Your task to perform on an android device: add a contact Image 0: 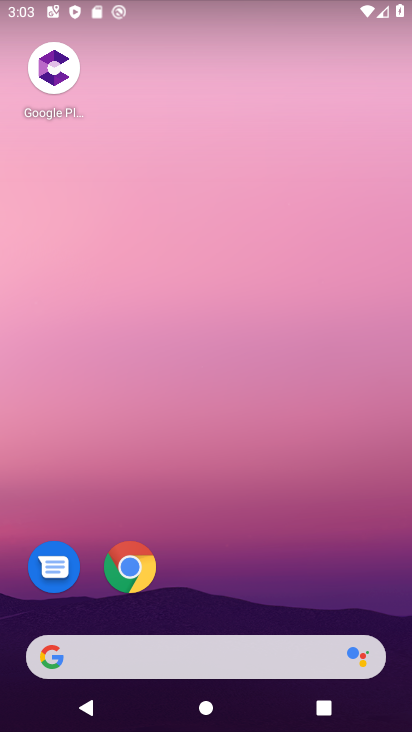
Step 0: drag from (232, 604) to (283, 9)
Your task to perform on an android device: add a contact Image 1: 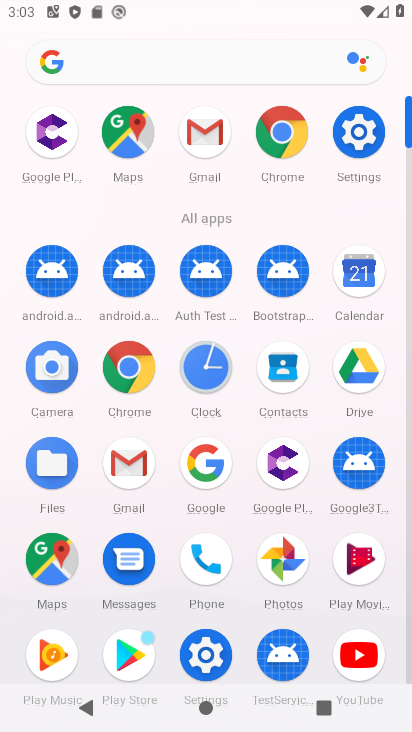
Step 1: click (290, 373)
Your task to perform on an android device: add a contact Image 2: 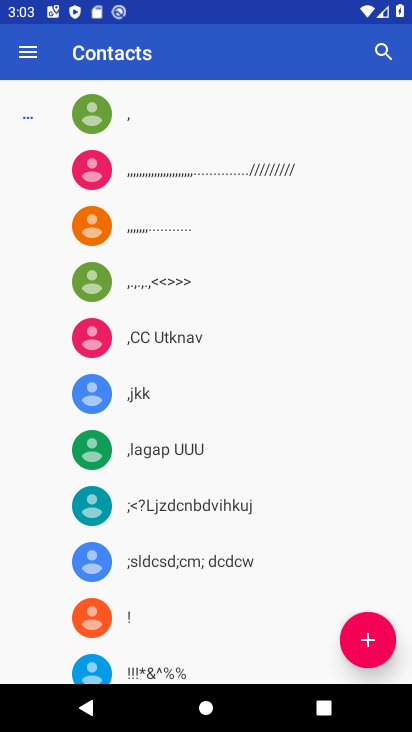
Step 2: click (370, 641)
Your task to perform on an android device: add a contact Image 3: 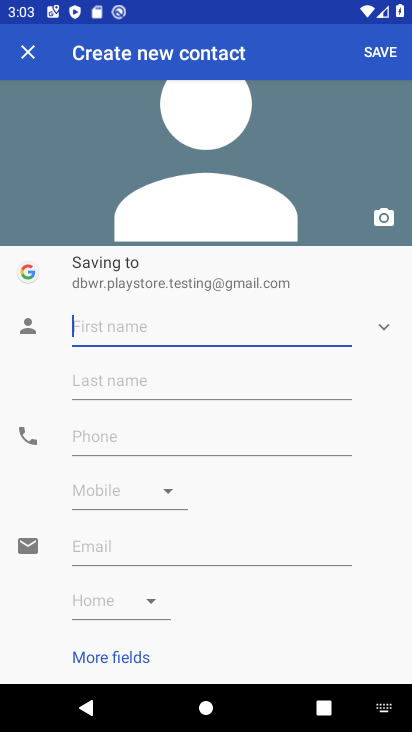
Step 3: type "cha"
Your task to perform on an android device: add a contact Image 4: 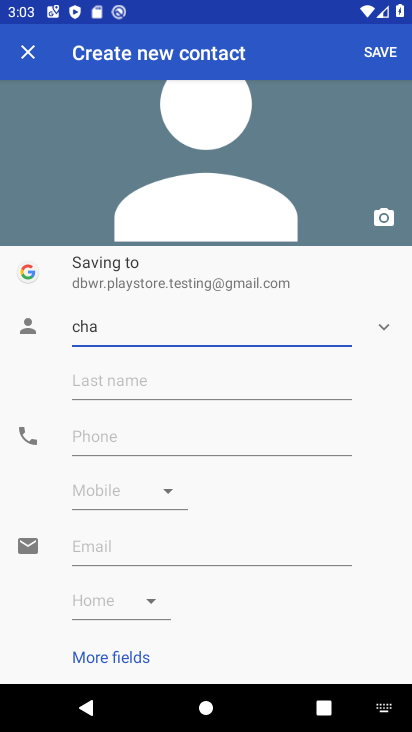
Step 4: click (149, 448)
Your task to perform on an android device: add a contact Image 5: 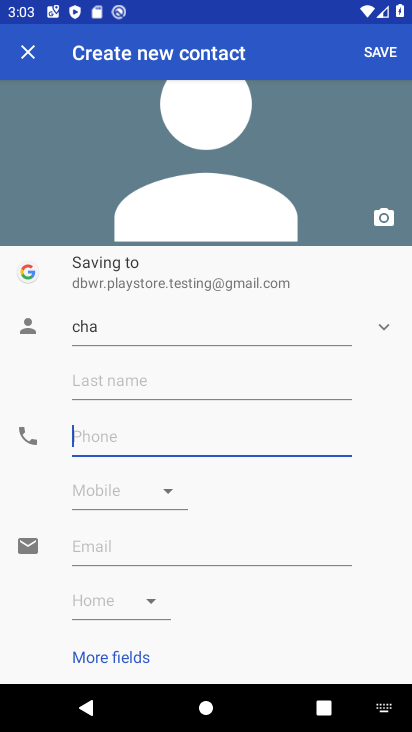
Step 5: type "98765456789"
Your task to perform on an android device: add a contact Image 6: 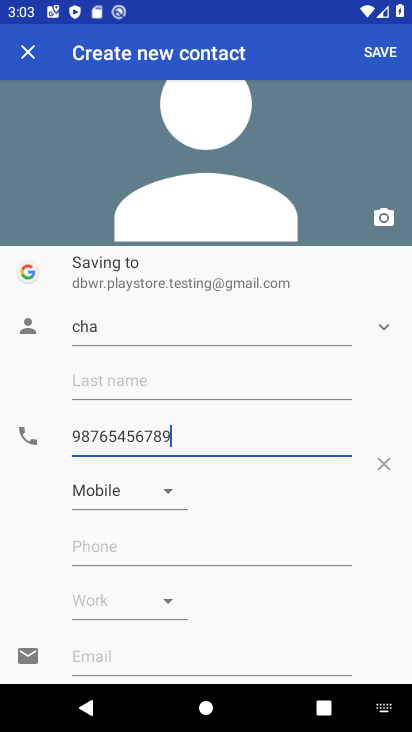
Step 6: click (385, 48)
Your task to perform on an android device: add a contact Image 7: 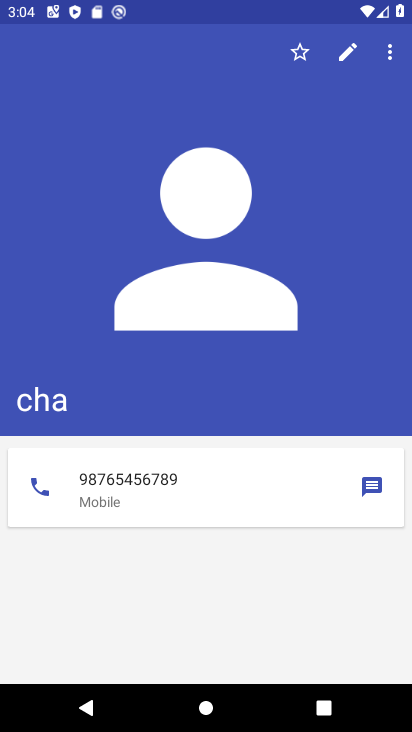
Step 7: task complete